Your task to perform on an android device: turn off sleep mode Image 0: 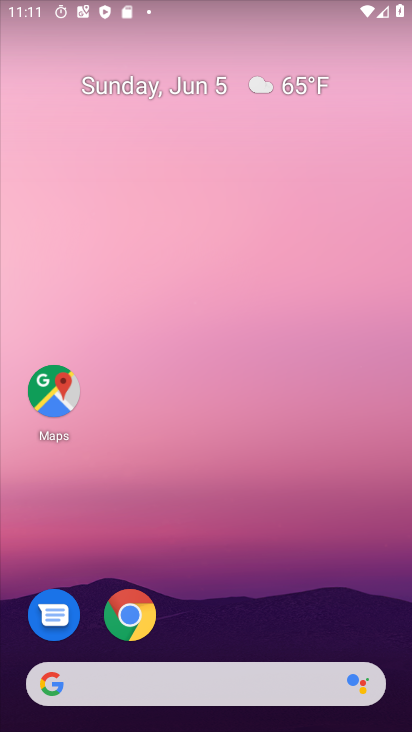
Step 0: drag from (156, 116) to (165, 597)
Your task to perform on an android device: turn off sleep mode Image 1: 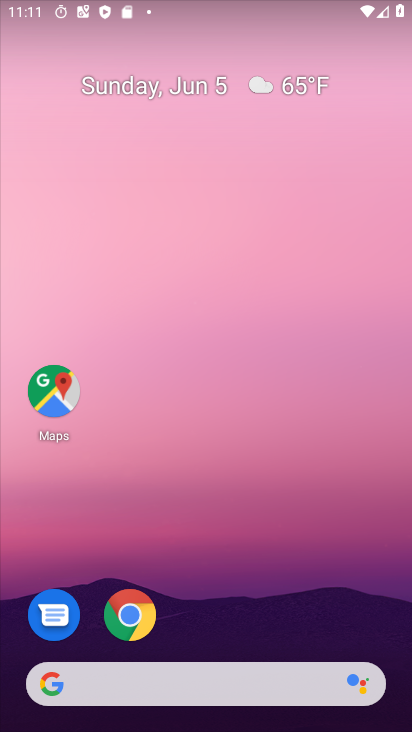
Step 1: drag from (205, 16) to (91, 614)
Your task to perform on an android device: turn off sleep mode Image 2: 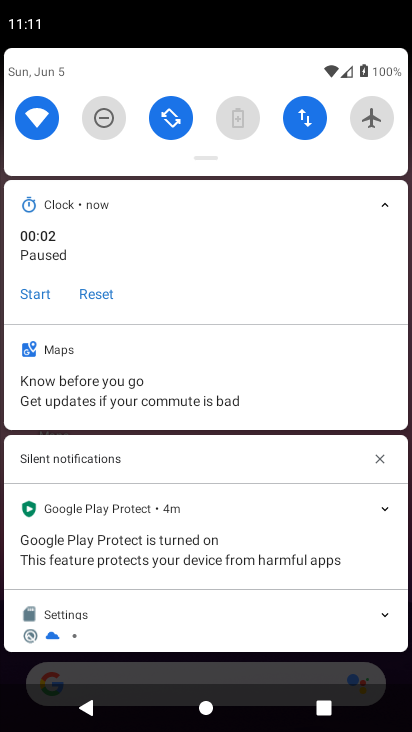
Step 2: drag from (213, 162) to (177, 605)
Your task to perform on an android device: turn off sleep mode Image 3: 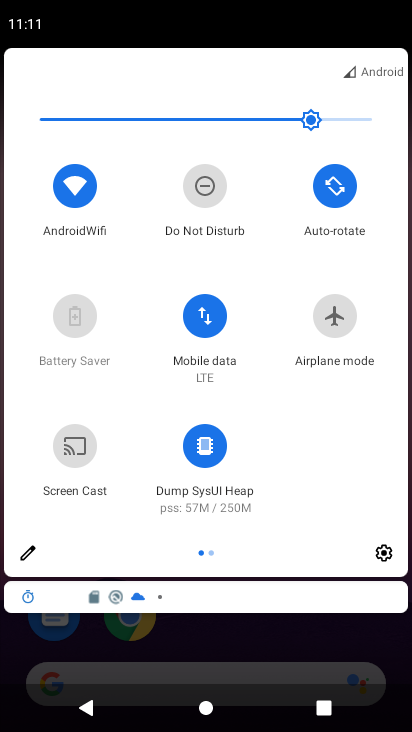
Step 3: click (22, 549)
Your task to perform on an android device: turn off sleep mode Image 4: 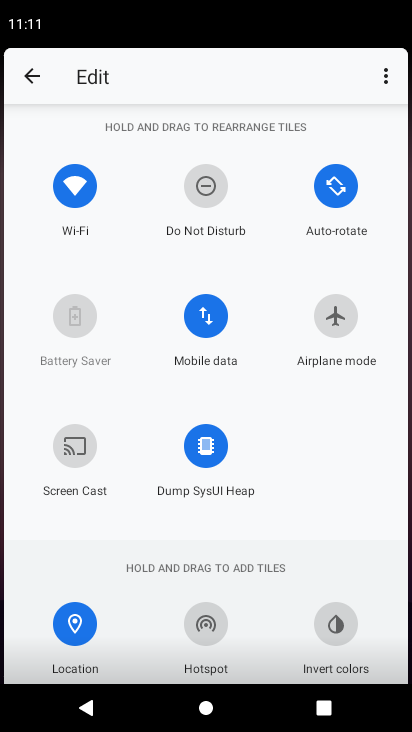
Step 4: task complete